Your task to perform on an android device: turn off picture-in-picture Image 0: 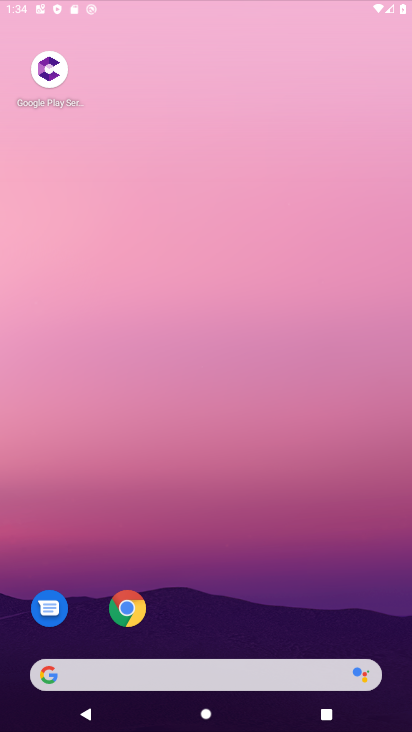
Step 0: drag from (304, 551) to (394, 7)
Your task to perform on an android device: turn off picture-in-picture Image 1: 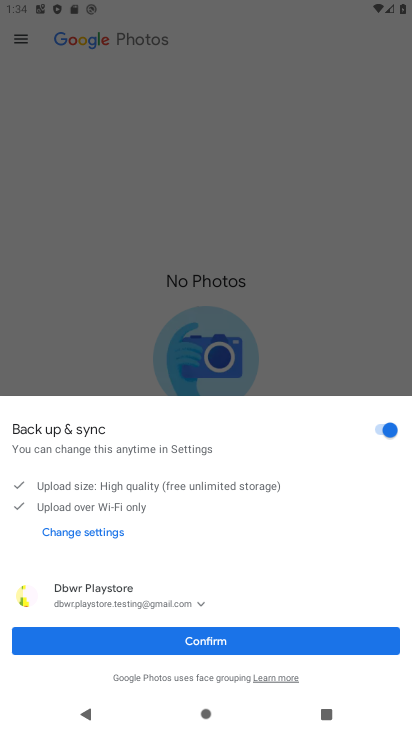
Step 1: press home button
Your task to perform on an android device: turn off picture-in-picture Image 2: 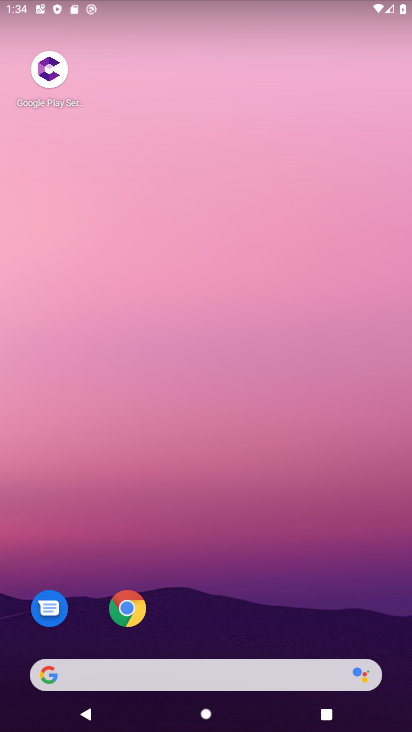
Step 2: click (133, 608)
Your task to perform on an android device: turn off picture-in-picture Image 3: 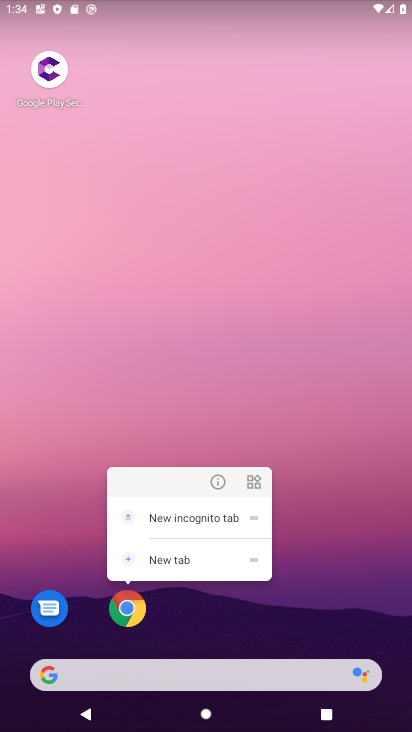
Step 3: click (228, 482)
Your task to perform on an android device: turn off picture-in-picture Image 4: 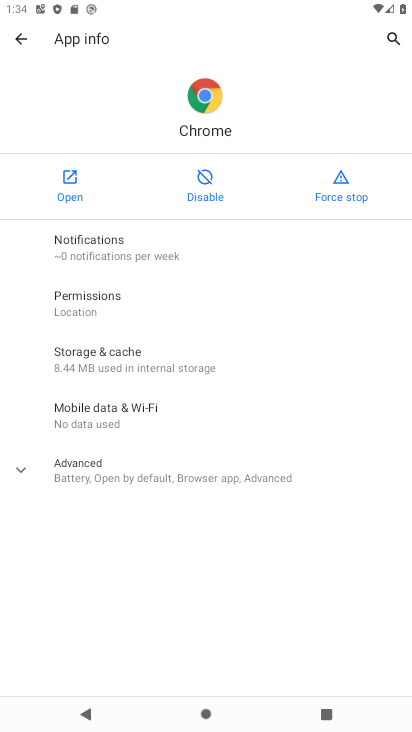
Step 4: click (109, 470)
Your task to perform on an android device: turn off picture-in-picture Image 5: 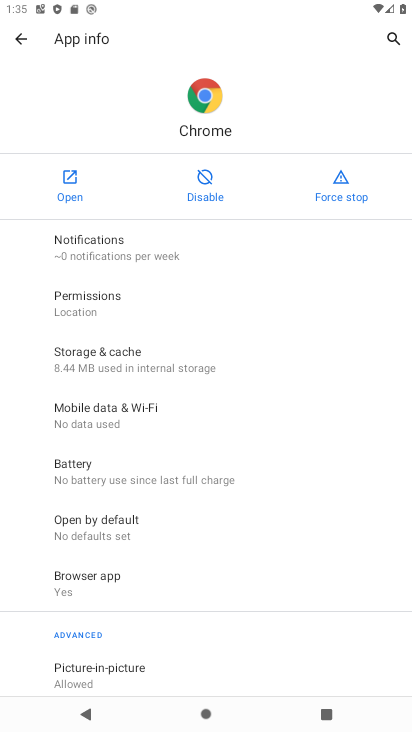
Step 5: drag from (157, 574) to (219, 233)
Your task to perform on an android device: turn off picture-in-picture Image 6: 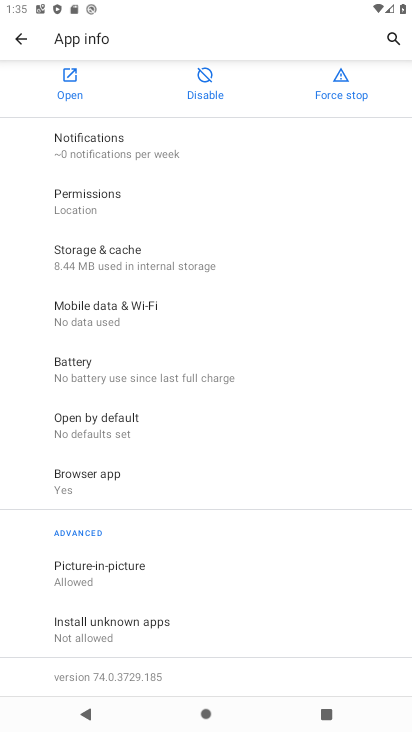
Step 6: click (99, 562)
Your task to perform on an android device: turn off picture-in-picture Image 7: 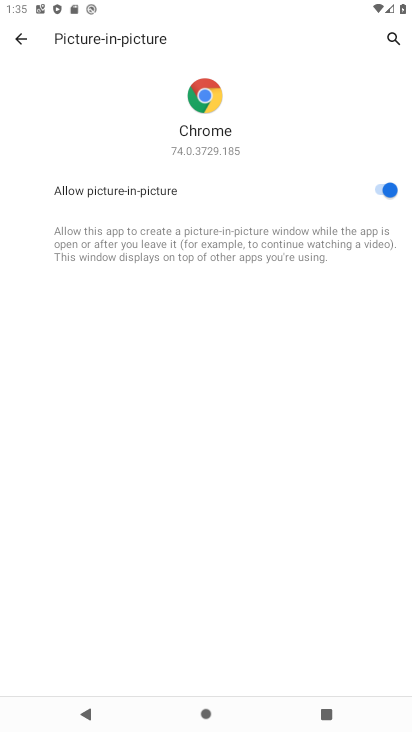
Step 7: click (405, 188)
Your task to perform on an android device: turn off picture-in-picture Image 8: 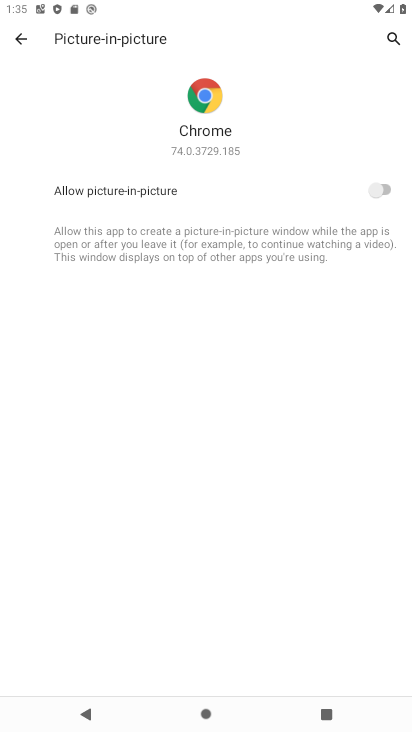
Step 8: task complete